Your task to perform on an android device: Go to Android settings Image 0: 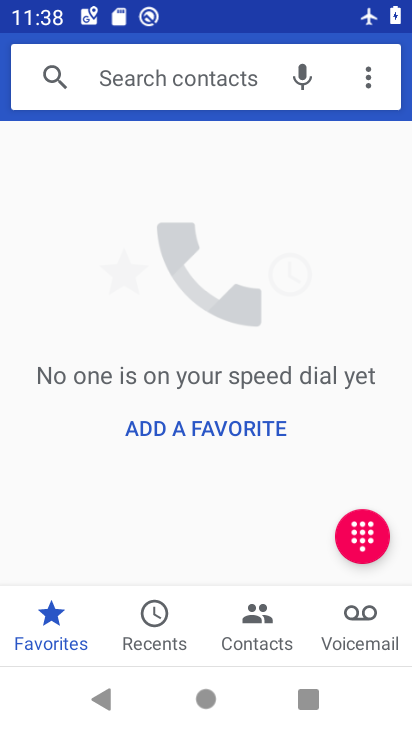
Step 0: press back button
Your task to perform on an android device: Go to Android settings Image 1: 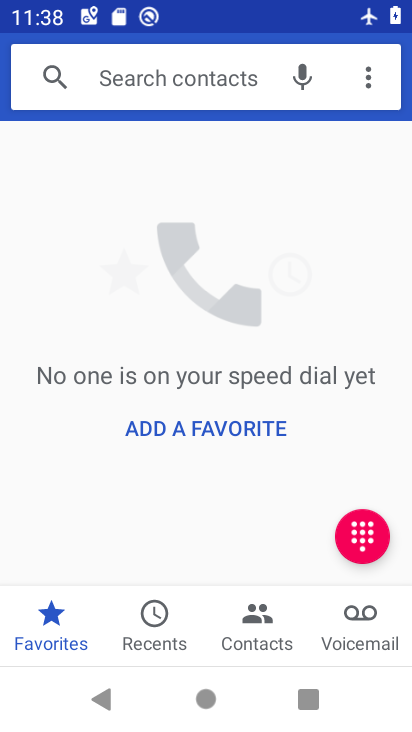
Step 1: press back button
Your task to perform on an android device: Go to Android settings Image 2: 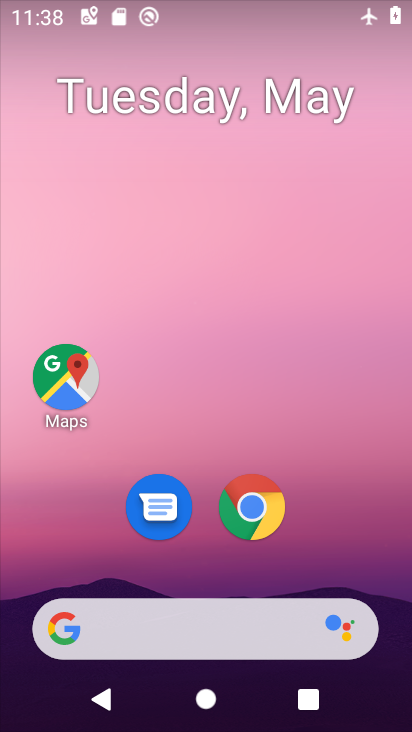
Step 2: drag from (250, 711) to (216, 173)
Your task to perform on an android device: Go to Android settings Image 3: 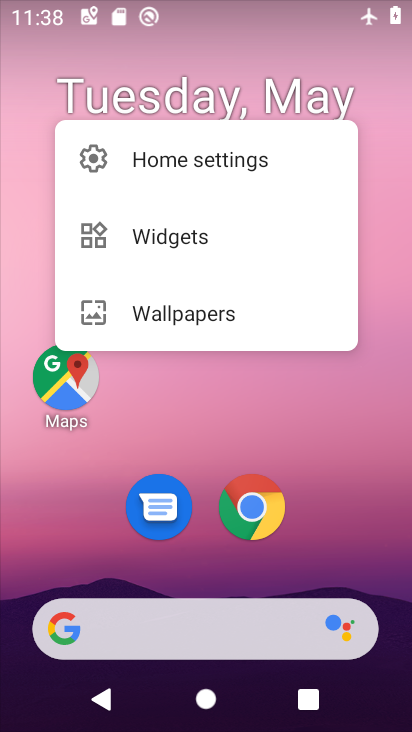
Step 3: drag from (327, 461) to (327, 147)
Your task to perform on an android device: Go to Android settings Image 4: 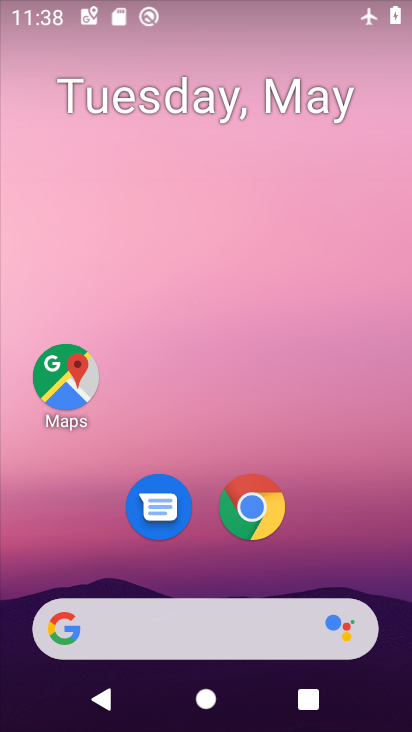
Step 4: click (371, 213)
Your task to perform on an android device: Go to Android settings Image 5: 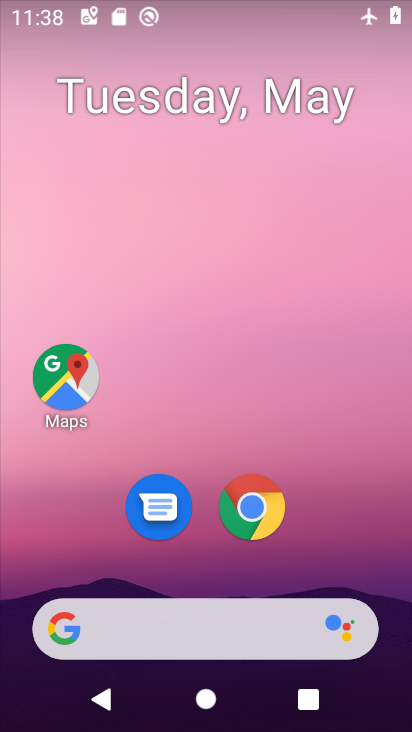
Step 5: drag from (231, 670) to (165, 209)
Your task to perform on an android device: Go to Android settings Image 6: 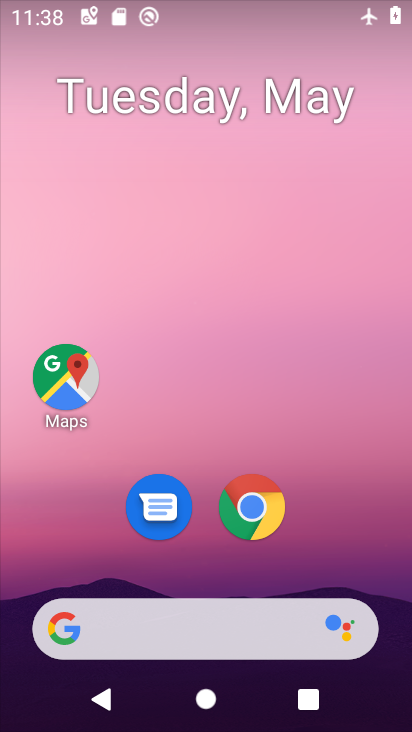
Step 6: drag from (245, 665) to (206, 288)
Your task to perform on an android device: Go to Android settings Image 7: 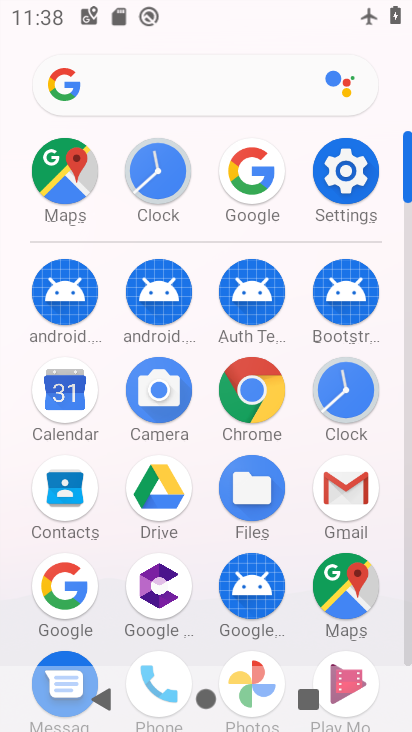
Step 7: click (346, 175)
Your task to perform on an android device: Go to Android settings Image 8: 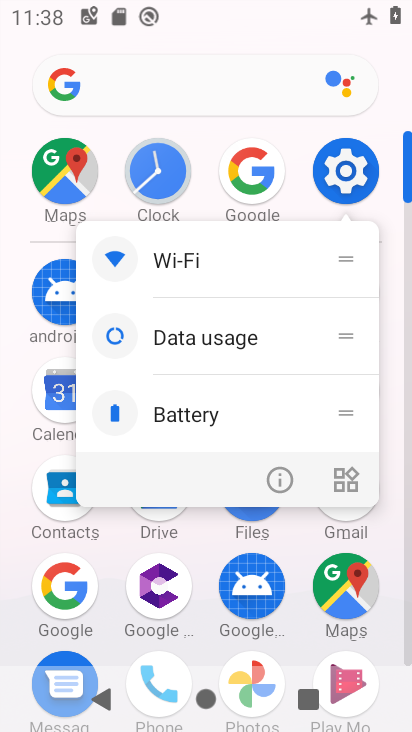
Step 8: click (351, 173)
Your task to perform on an android device: Go to Android settings Image 9: 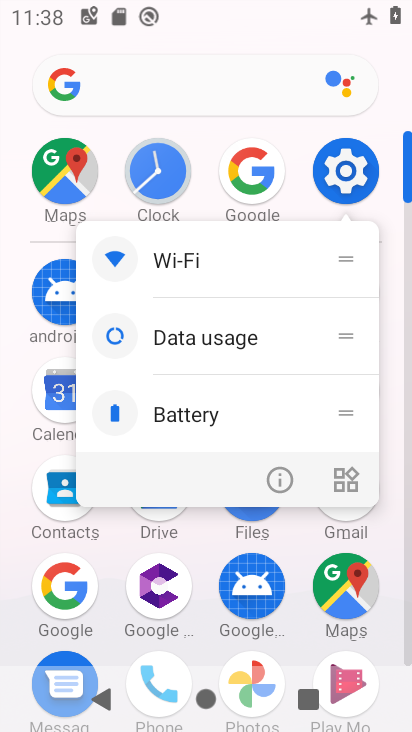
Step 9: click (349, 176)
Your task to perform on an android device: Go to Android settings Image 10: 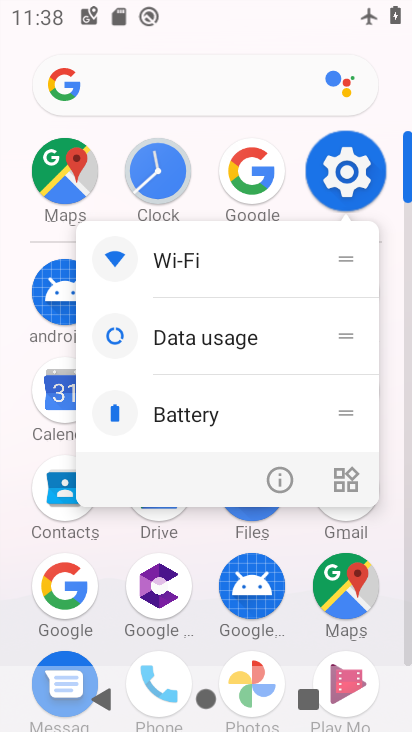
Step 10: click (348, 177)
Your task to perform on an android device: Go to Android settings Image 11: 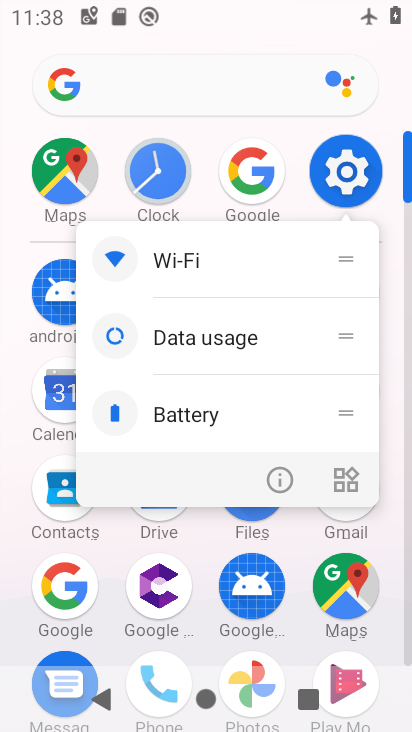
Step 11: click (348, 177)
Your task to perform on an android device: Go to Android settings Image 12: 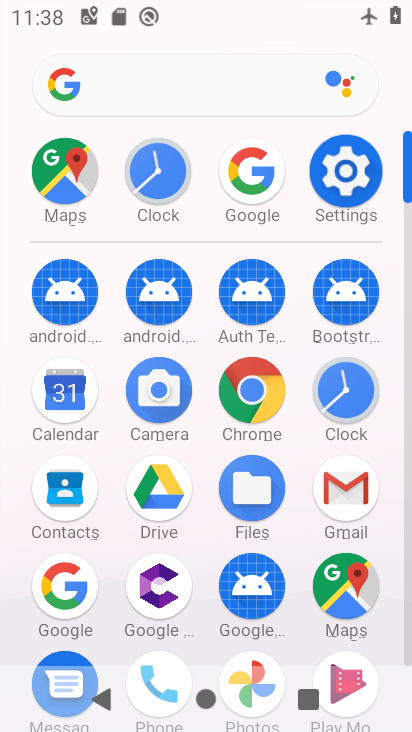
Step 12: click (348, 178)
Your task to perform on an android device: Go to Android settings Image 13: 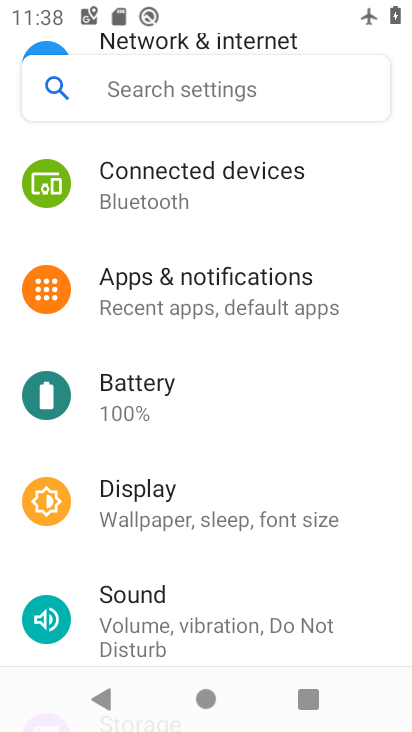
Step 13: drag from (162, 554) to (147, 234)
Your task to perform on an android device: Go to Android settings Image 14: 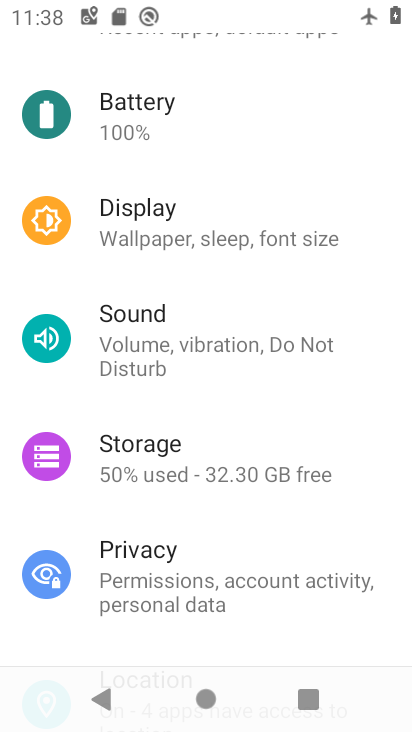
Step 14: drag from (231, 510) to (226, 186)
Your task to perform on an android device: Go to Android settings Image 15: 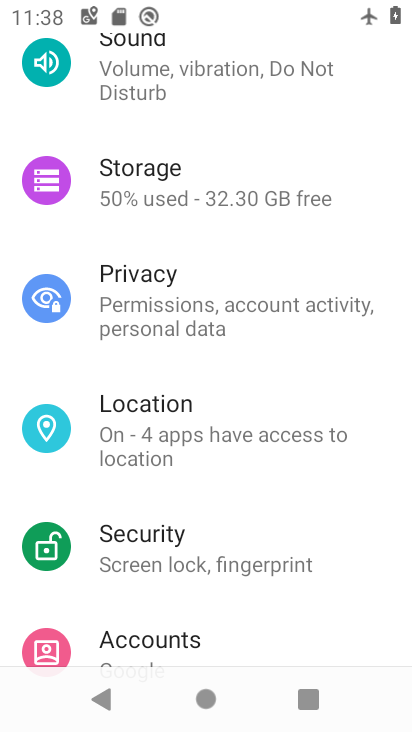
Step 15: drag from (257, 443) to (261, 192)
Your task to perform on an android device: Go to Android settings Image 16: 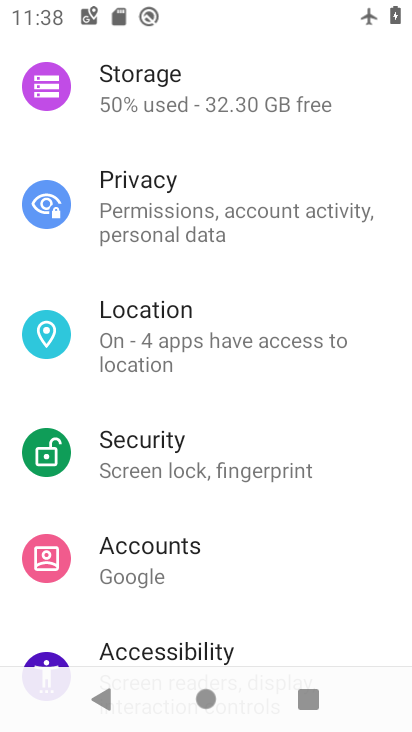
Step 16: drag from (253, 549) to (253, 166)
Your task to perform on an android device: Go to Android settings Image 17: 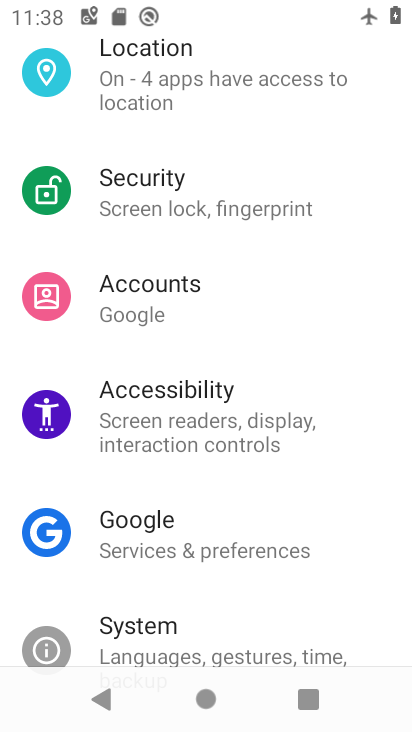
Step 17: drag from (308, 492) to (315, 149)
Your task to perform on an android device: Go to Android settings Image 18: 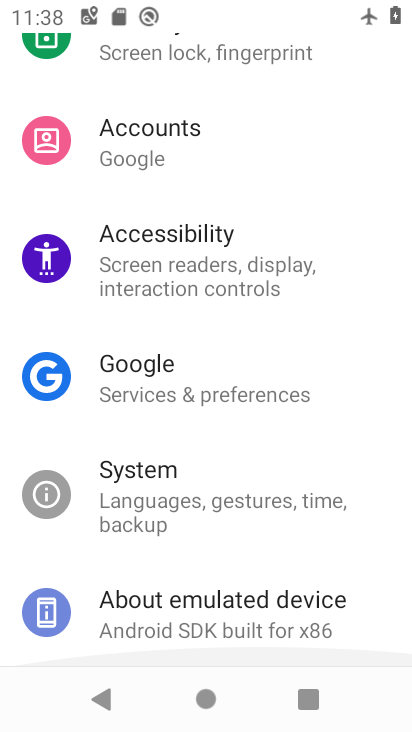
Step 18: drag from (321, 453) to (319, 96)
Your task to perform on an android device: Go to Android settings Image 19: 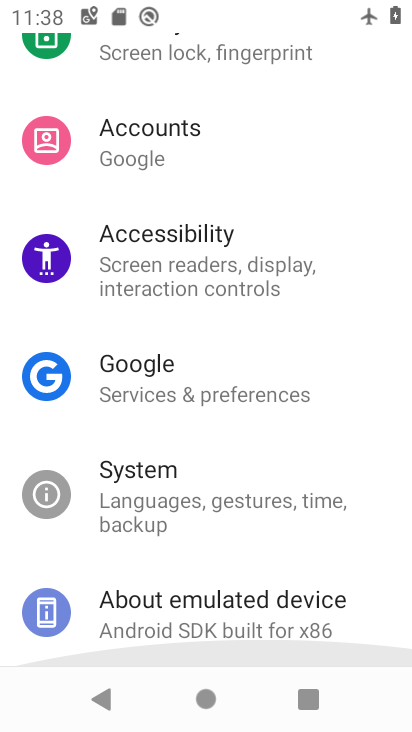
Step 19: drag from (233, 372) to (232, 85)
Your task to perform on an android device: Go to Android settings Image 20: 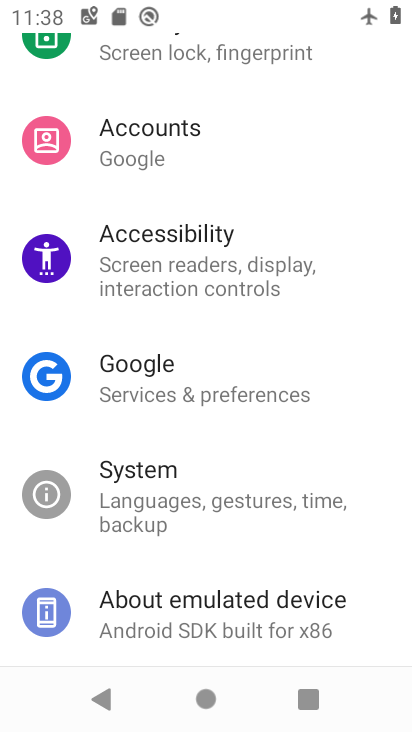
Step 20: drag from (237, 470) to (241, 130)
Your task to perform on an android device: Go to Android settings Image 21: 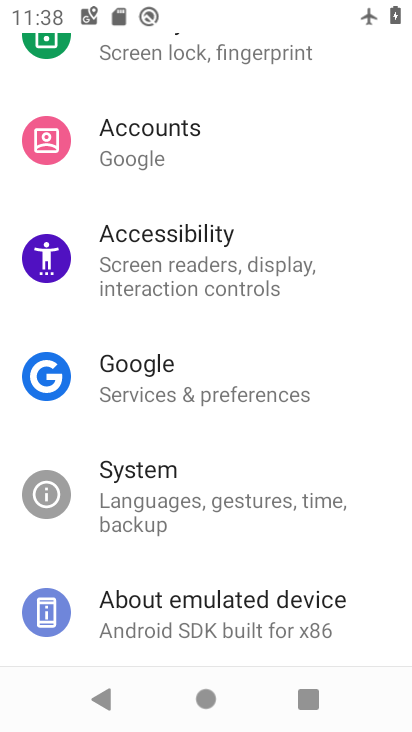
Step 21: click (162, 628)
Your task to perform on an android device: Go to Android settings Image 22: 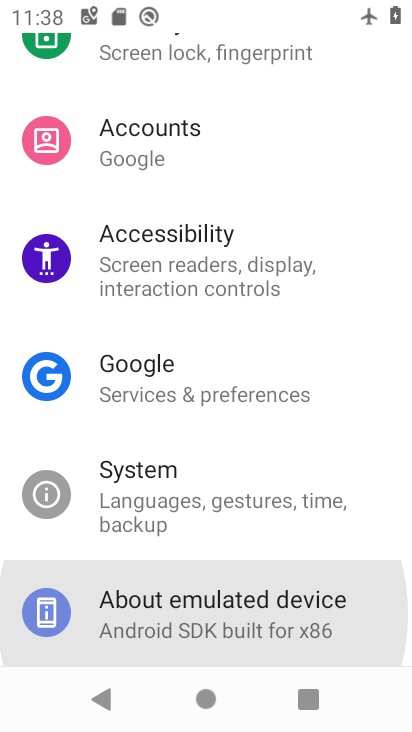
Step 22: click (170, 622)
Your task to perform on an android device: Go to Android settings Image 23: 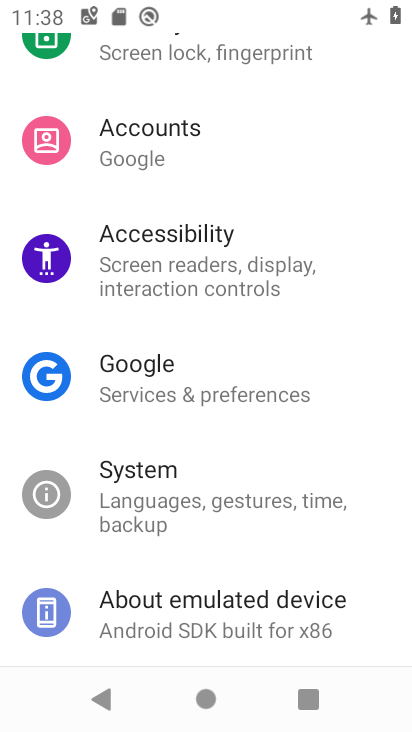
Step 23: click (170, 622)
Your task to perform on an android device: Go to Android settings Image 24: 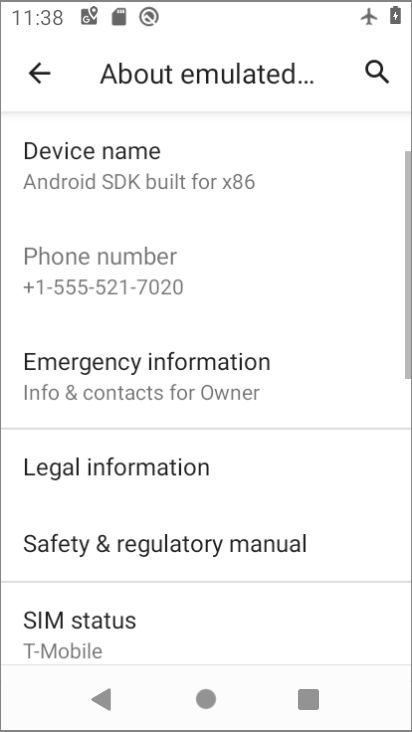
Step 24: click (170, 622)
Your task to perform on an android device: Go to Android settings Image 25: 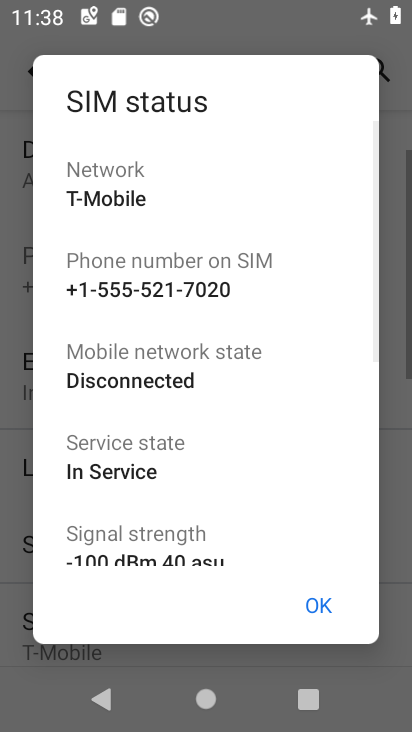
Step 25: click (316, 605)
Your task to perform on an android device: Go to Android settings Image 26: 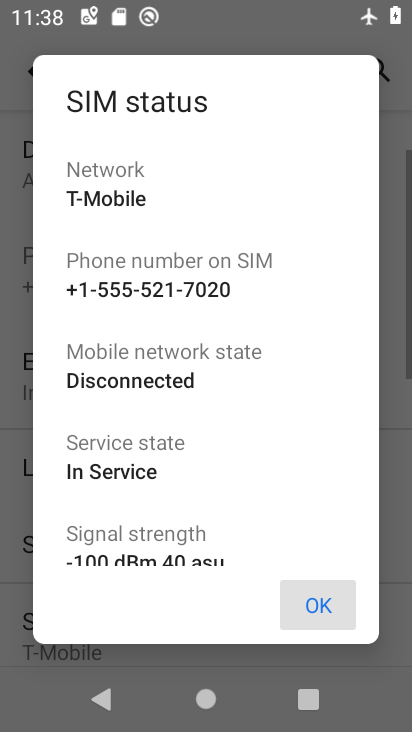
Step 26: click (316, 604)
Your task to perform on an android device: Go to Android settings Image 27: 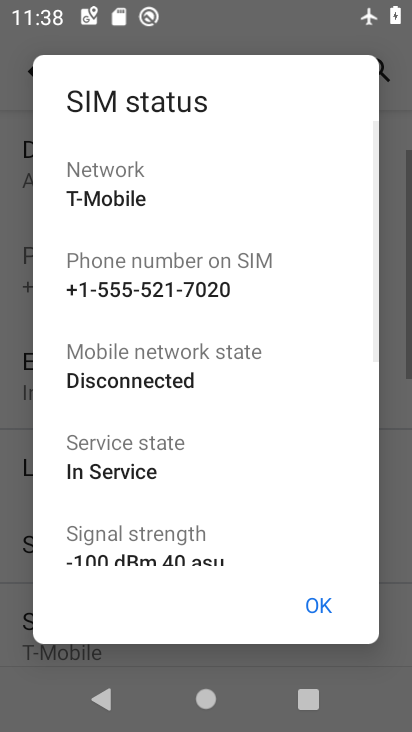
Step 27: click (323, 600)
Your task to perform on an android device: Go to Android settings Image 28: 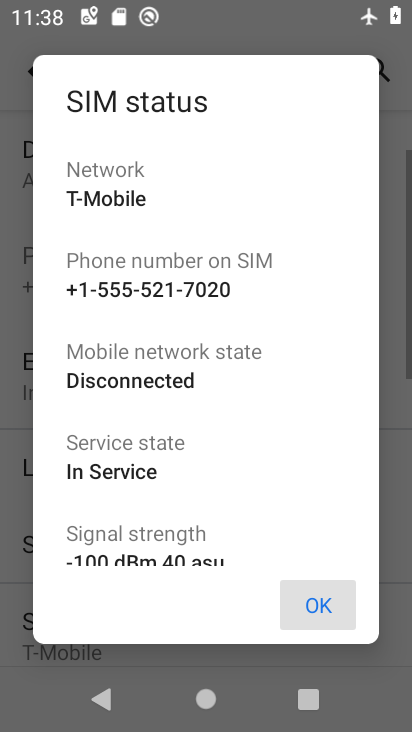
Step 28: click (323, 600)
Your task to perform on an android device: Go to Android settings Image 29: 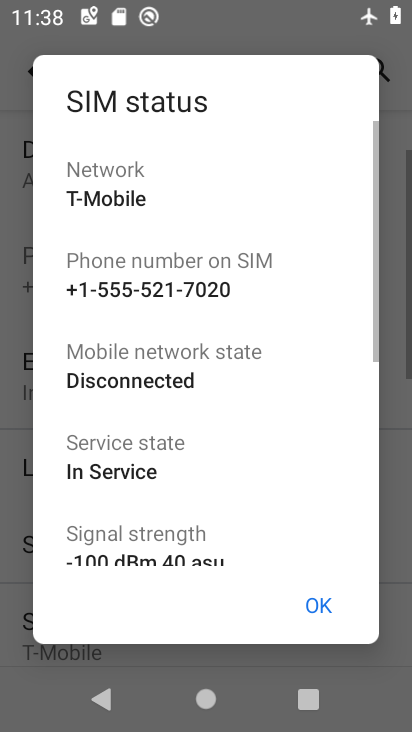
Step 29: task complete